Your task to perform on an android device: change the clock display to analog Image 0: 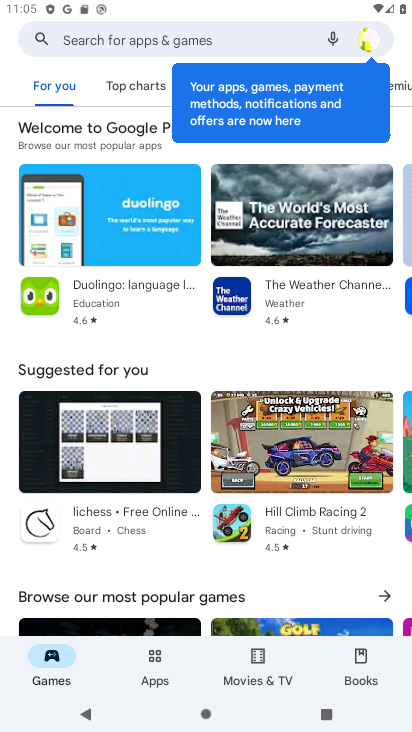
Step 0: press home button
Your task to perform on an android device: change the clock display to analog Image 1: 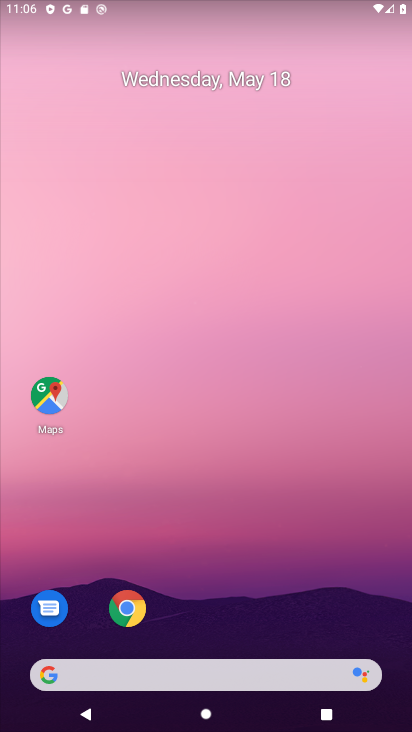
Step 1: drag from (181, 576) to (216, 131)
Your task to perform on an android device: change the clock display to analog Image 2: 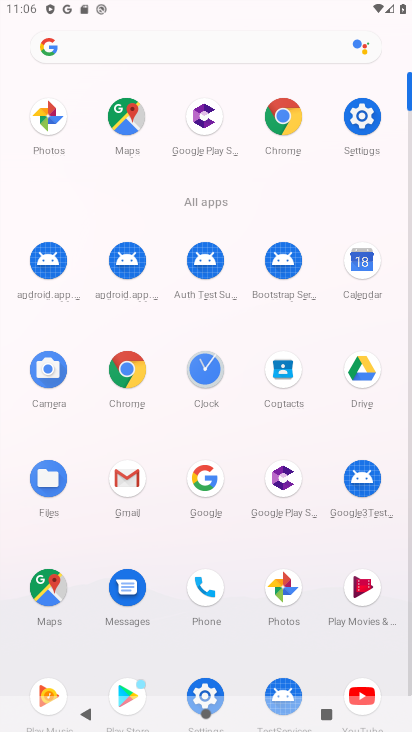
Step 2: click (204, 379)
Your task to perform on an android device: change the clock display to analog Image 3: 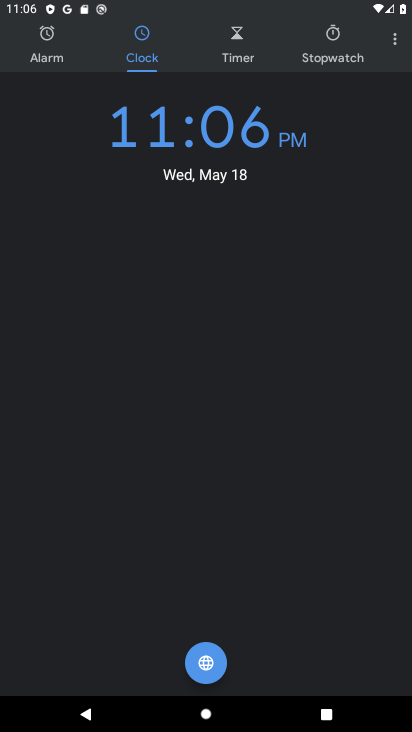
Step 3: click (396, 42)
Your task to perform on an android device: change the clock display to analog Image 4: 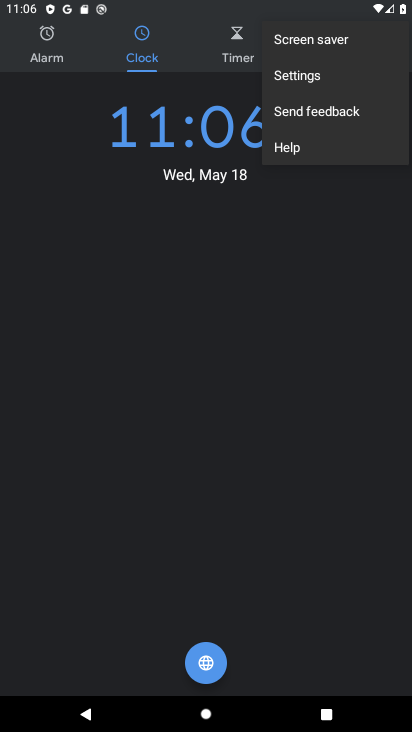
Step 4: click (299, 82)
Your task to perform on an android device: change the clock display to analog Image 5: 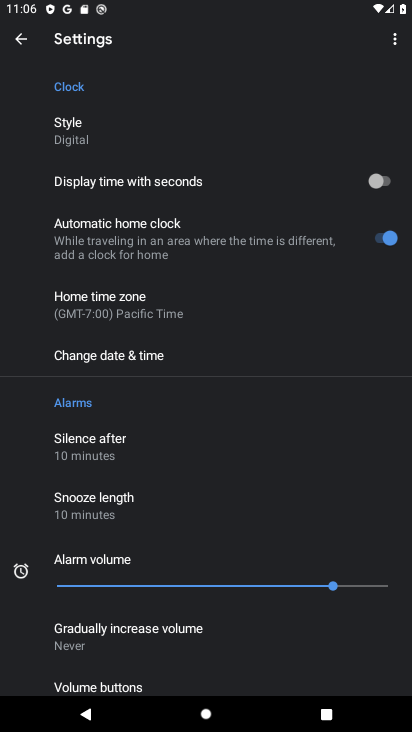
Step 5: click (76, 142)
Your task to perform on an android device: change the clock display to analog Image 6: 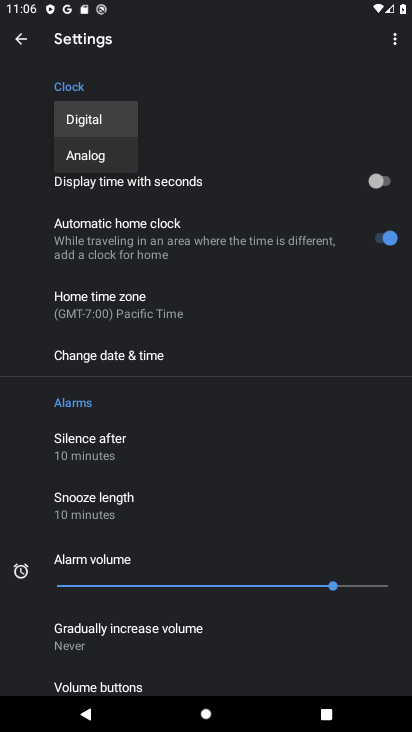
Step 6: click (90, 159)
Your task to perform on an android device: change the clock display to analog Image 7: 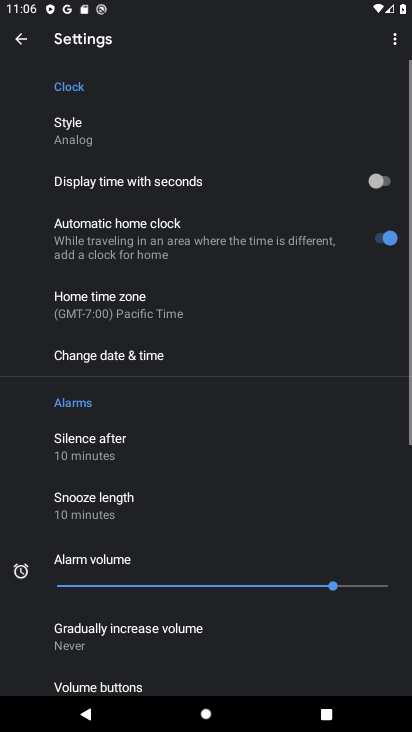
Step 7: task complete